Your task to perform on an android device: empty trash in the gmail app Image 0: 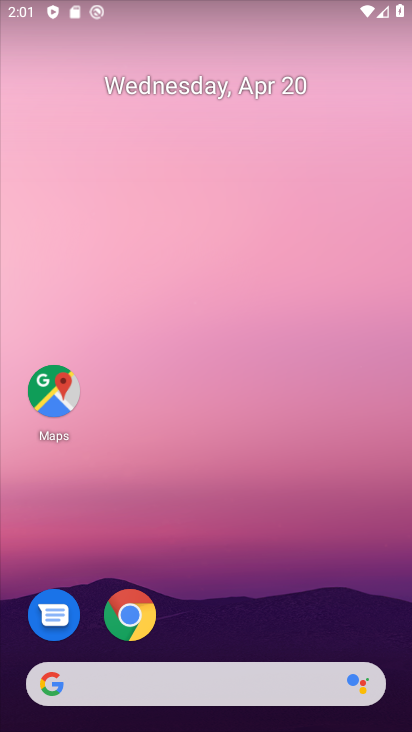
Step 0: drag from (268, 601) to (257, 205)
Your task to perform on an android device: empty trash in the gmail app Image 1: 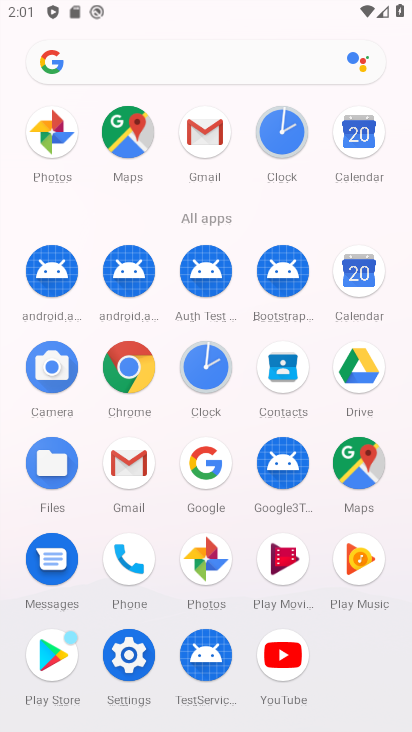
Step 1: click (199, 146)
Your task to perform on an android device: empty trash in the gmail app Image 2: 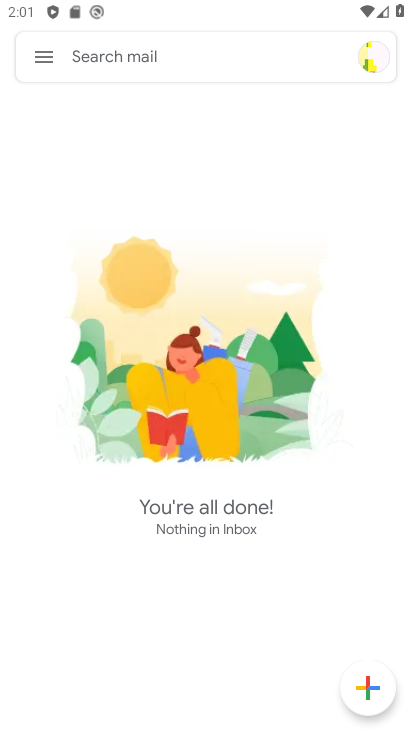
Step 2: click (54, 55)
Your task to perform on an android device: empty trash in the gmail app Image 3: 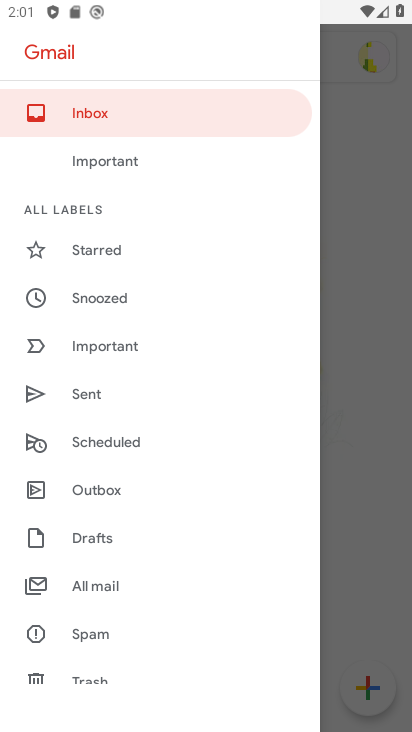
Step 3: drag from (152, 656) to (146, 252)
Your task to perform on an android device: empty trash in the gmail app Image 4: 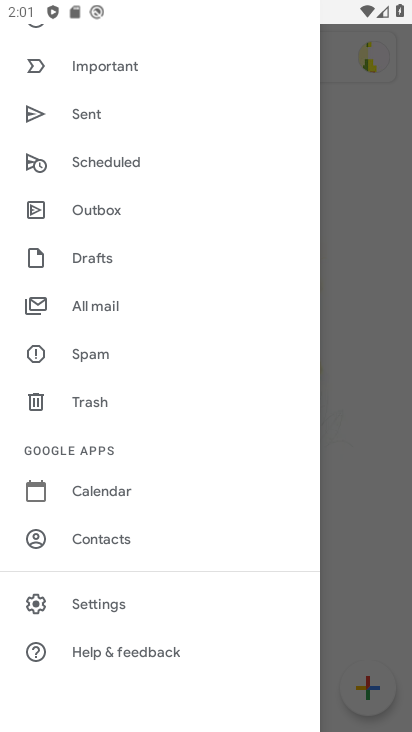
Step 4: click (102, 403)
Your task to perform on an android device: empty trash in the gmail app Image 5: 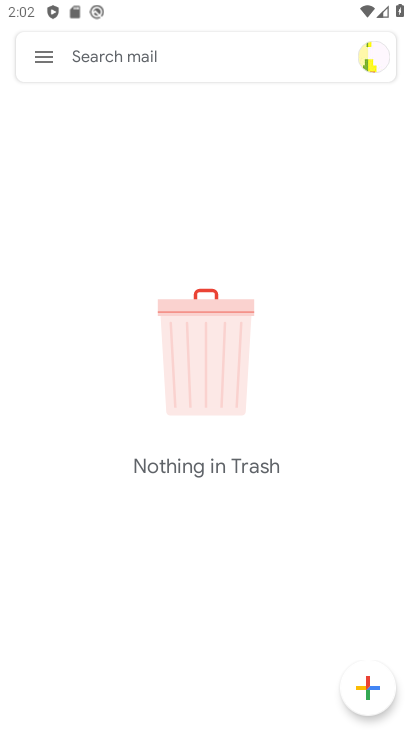
Step 5: task complete